Your task to perform on an android device: check android version Image 0: 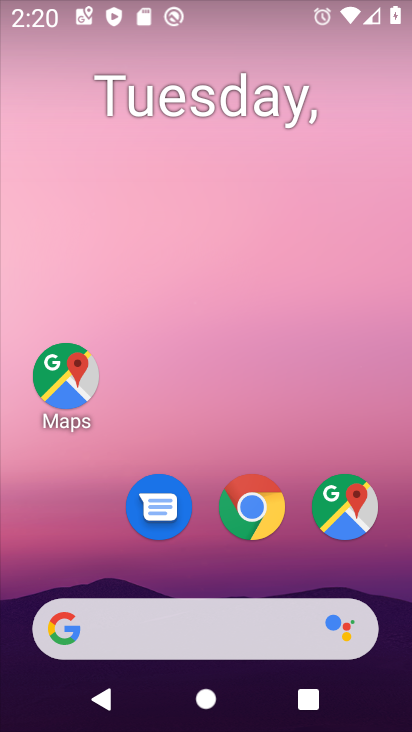
Step 0: drag from (274, 447) to (285, 177)
Your task to perform on an android device: check android version Image 1: 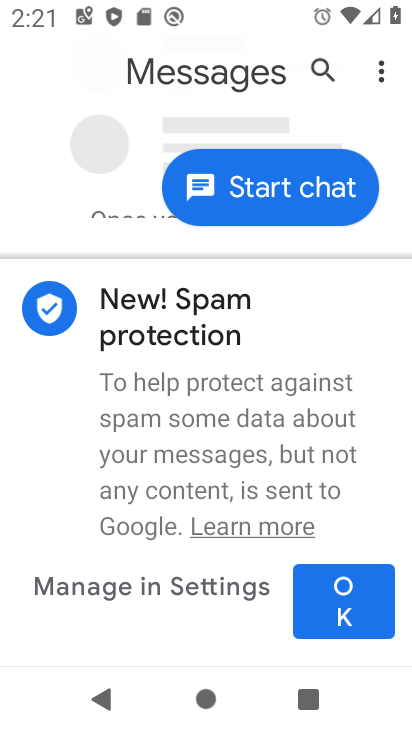
Step 1: press home button
Your task to perform on an android device: check android version Image 2: 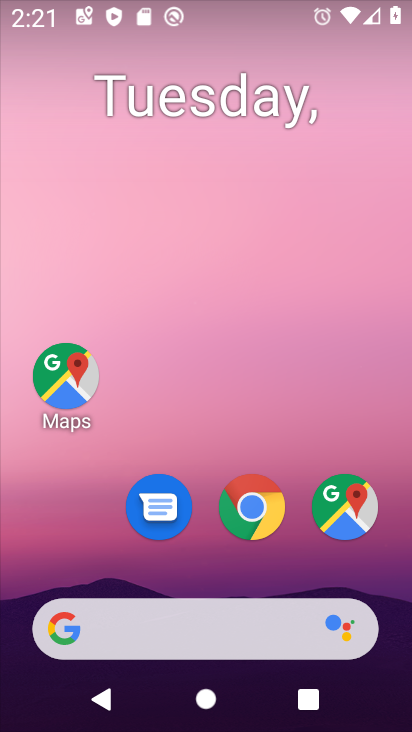
Step 2: drag from (207, 484) to (264, 170)
Your task to perform on an android device: check android version Image 3: 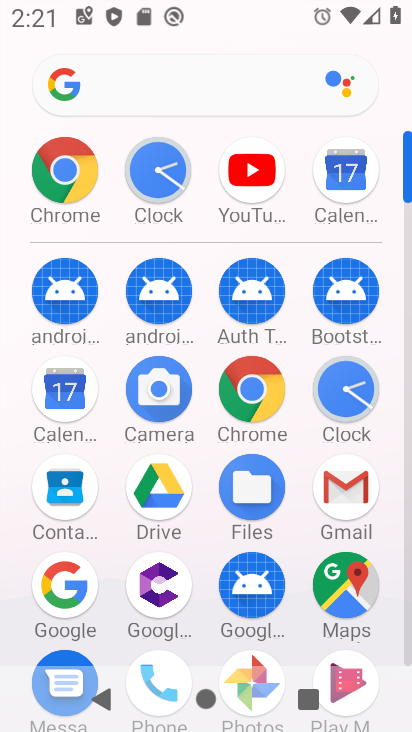
Step 3: drag from (190, 608) to (247, 253)
Your task to perform on an android device: check android version Image 4: 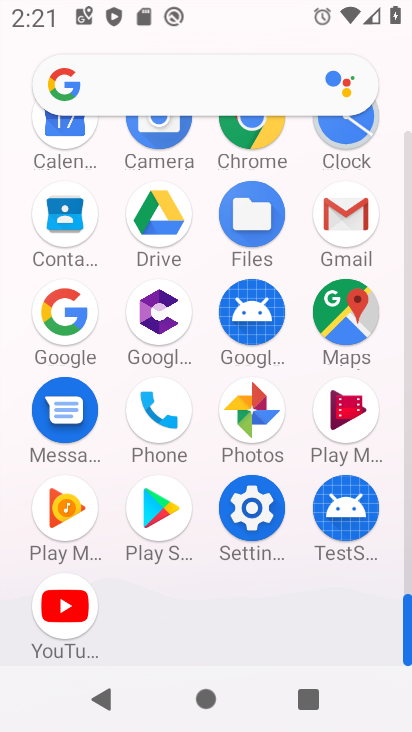
Step 4: click (244, 526)
Your task to perform on an android device: check android version Image 5: 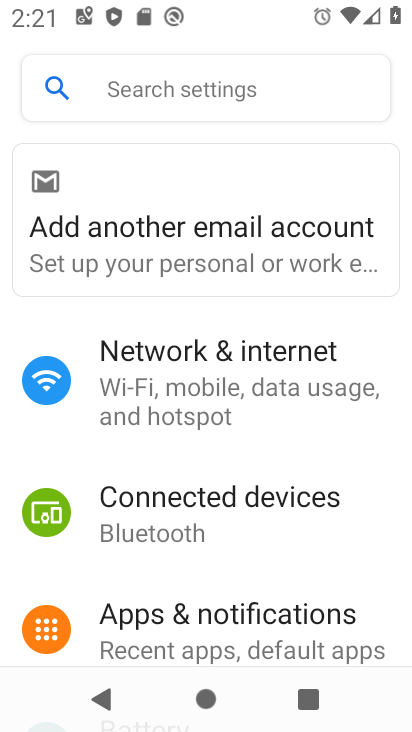
Step 5: drag from (228, 598) to (299, 245)
Your task to perform on an android device: check android version Image 6: 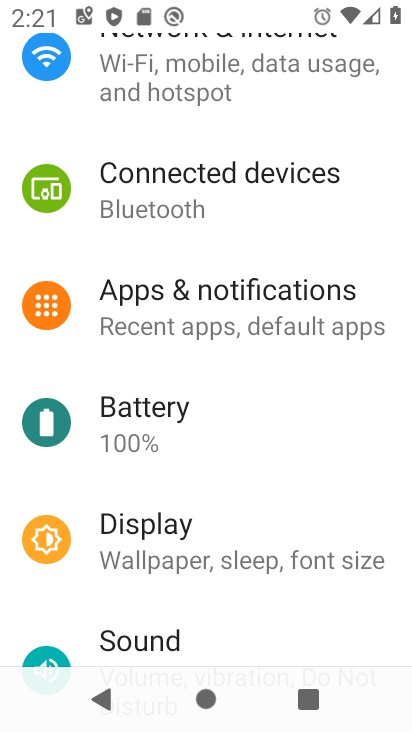
Step 6: drag from (248, 575) to (295, 315)
Your task to perform on an android device: check android version Image 7: 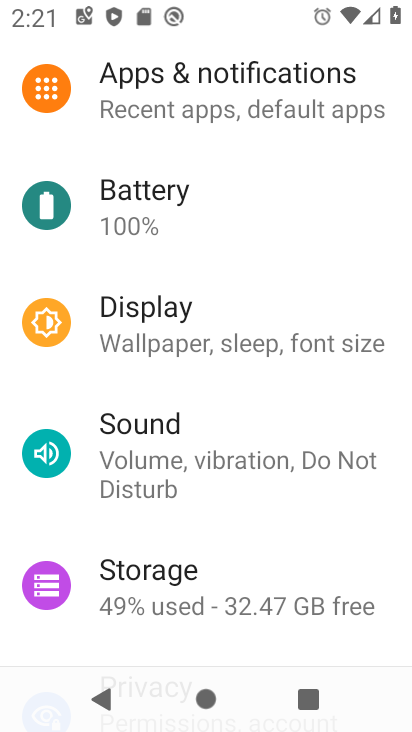
Step 7: drag from (204, 605) to (298, 248)
Your task to perform on an android device: check android version Image 8: 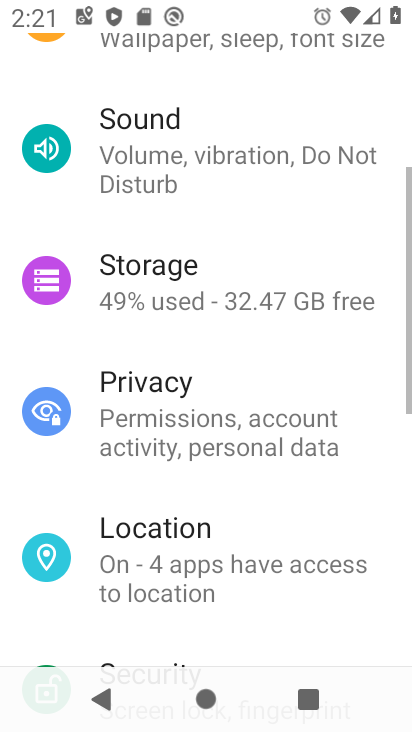
Step 8: drag from (277, 321) to (299, 233)
Your task to perform on an android device: check android version Image 9: 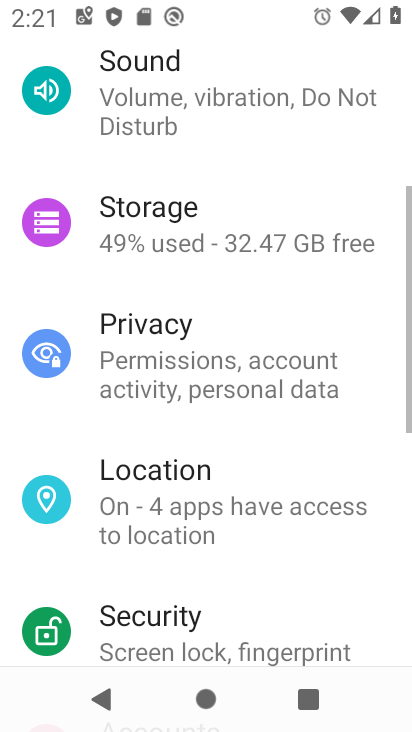
Step 9: drag from (179, 574) to (257, 242)
Your task to perform on an android device: check android version Image 10: 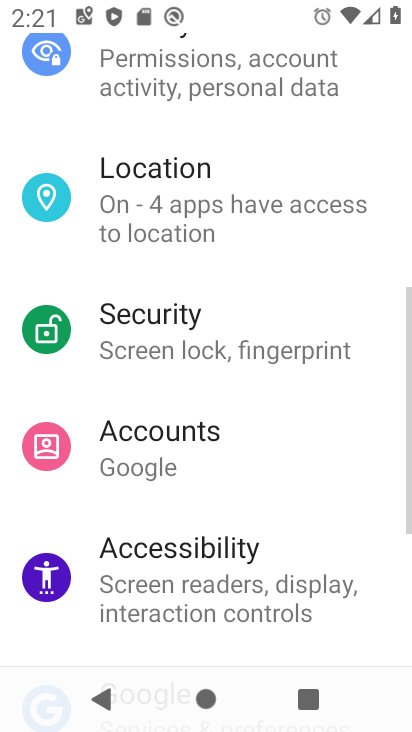
Step 10: drag from (170, 596) to (261, 260)
Your task to perform on an android device: check android version Image 11: 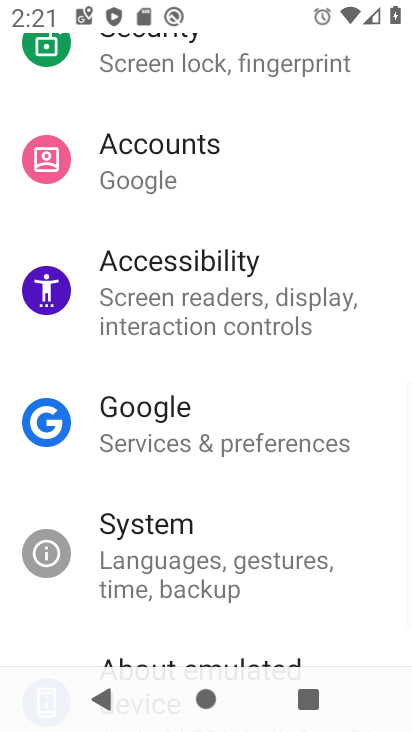
Step 11: drag from (180, 618) to (282, 282)
Your task to perform on an android device: check android version Image 12: 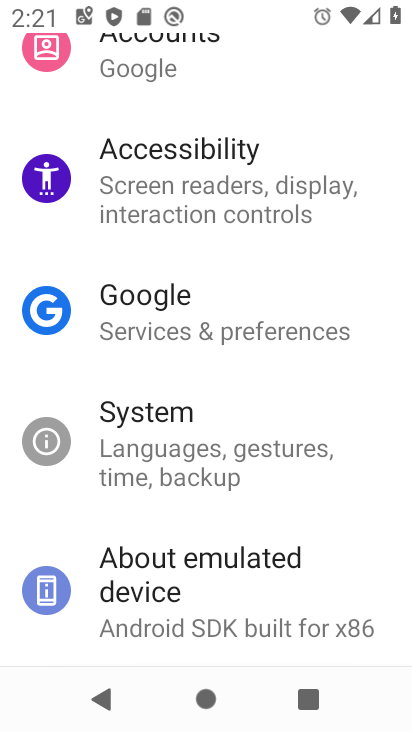
Step 12: click (177, 583)
Your task to perform on an android device: check android version Image 13: 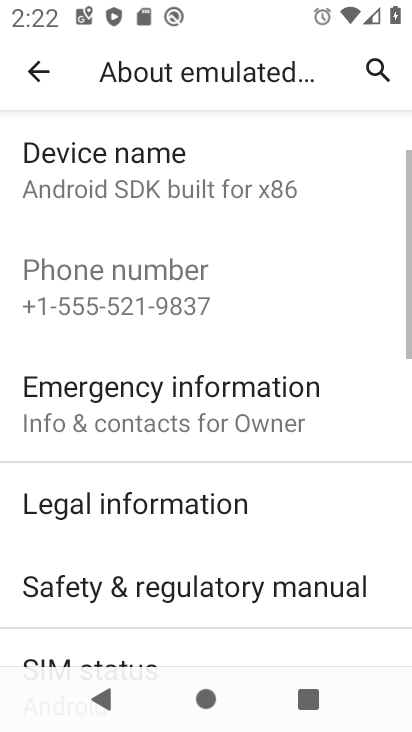
Step 13: task complete